Your task to perform on an android device: Open maps Image 0: 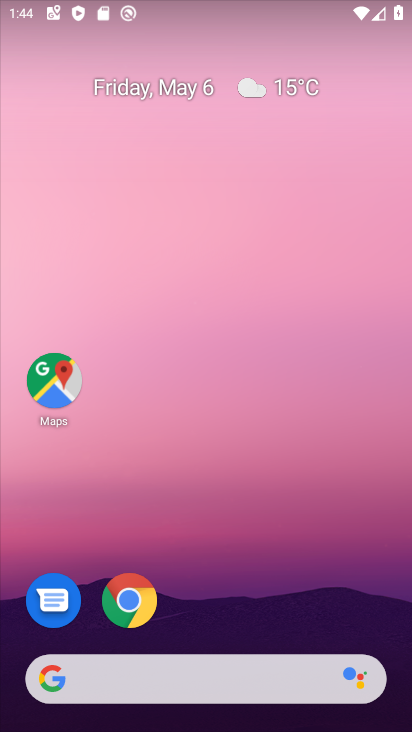
Step 0: click (35, 373)
Your task to perform on an android device: Open maps Image 1: 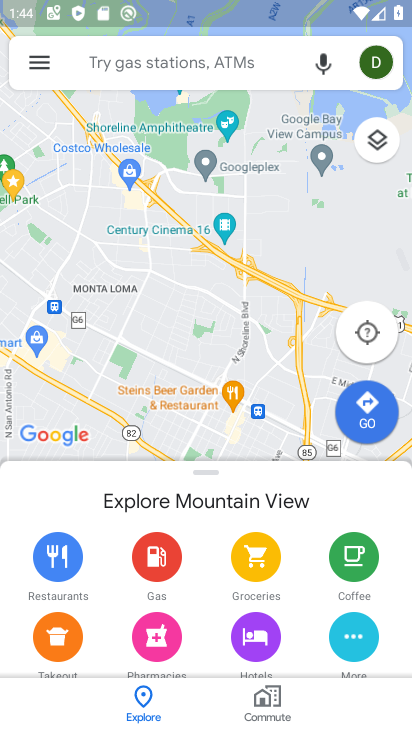
Step 1: task complete